Your task to perform on an android device: delete the emails in spam in the gmail app Image 0: 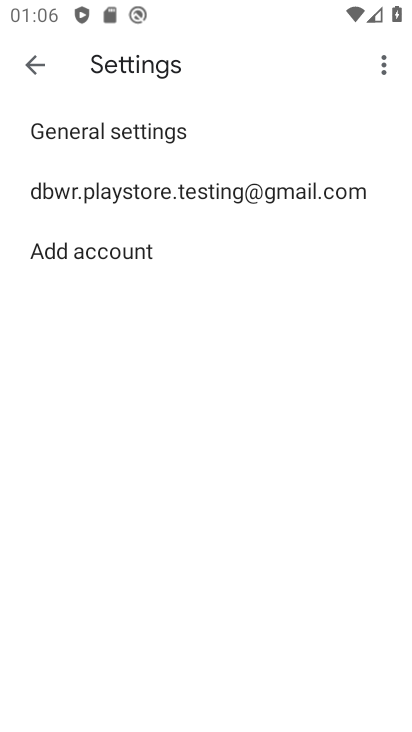
Step 0: press home button
Your task to perform on an android device: delete the emails in spam in the gmail app Image 1: 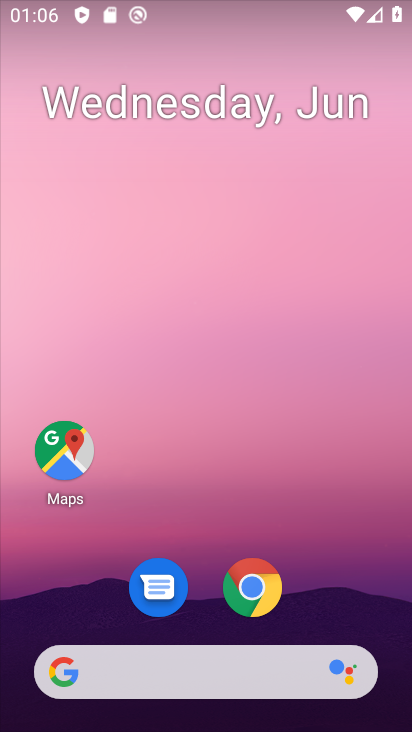
Step 1: drag from (377, 570) to (333, 144)
Your task to perform on an android device: delete the emails in spam in the gmail app Image 2: 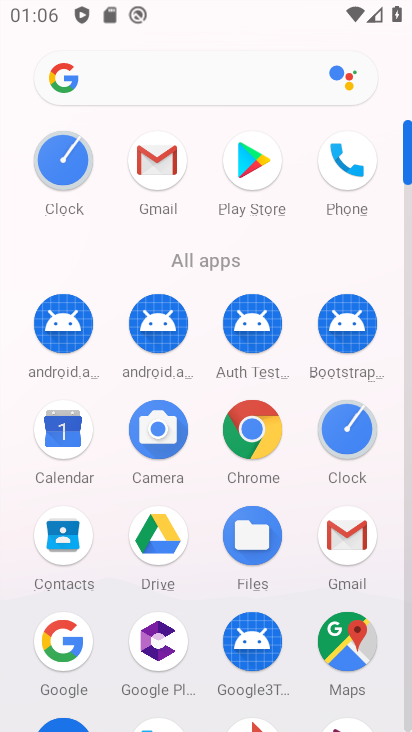
Step 2: click (172, 178)
Your task to perform on an android device: delete the emails in spam in the gmail app Image 3: 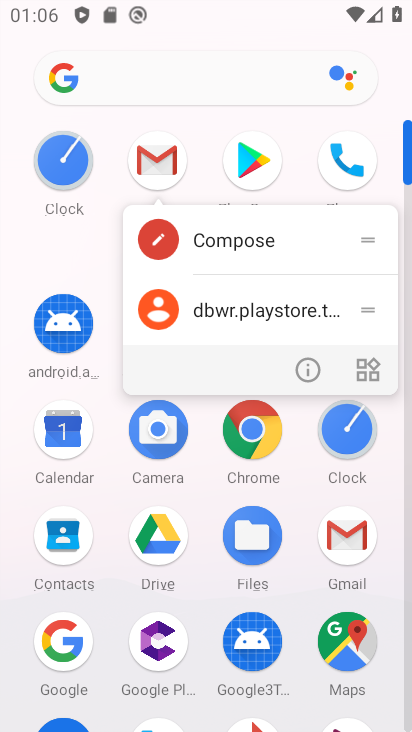
Step 3: click (161, 166)
Your task to perform on an android device: delete the emails in spam in the gmail app Image 4: 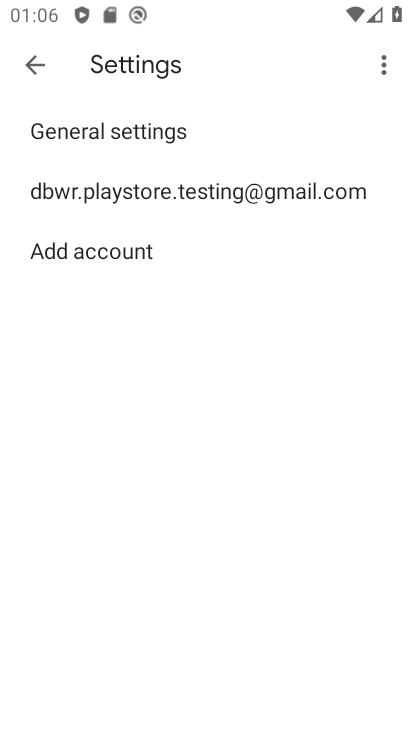
Step 4: click (25, 65)
Your task to perform on an android device: delete the emails in spam in the gmail app Image 5: 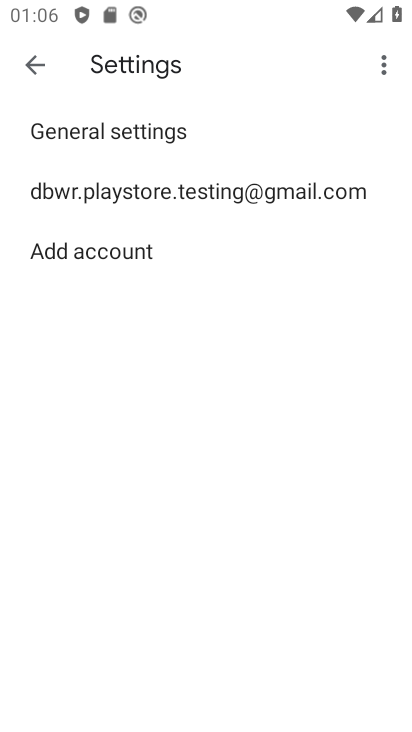
Step 5: click (29, 67)
Your task to perform on an android device: delete the emails in spam in the gmail app Image 6: 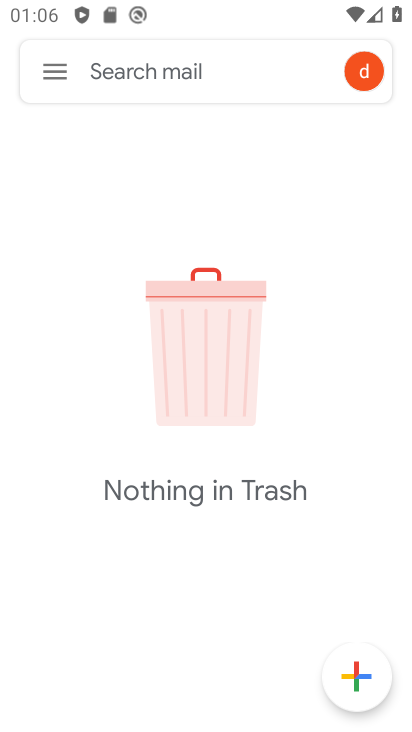
Step 6: click (52, 62)
Your task to perform on an android device: delete the emails in spam in the gmail app Image 7: 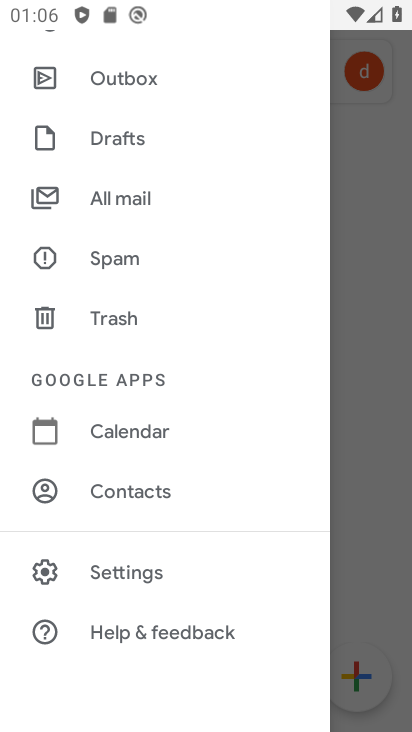
Step 7: click (126, 264)
Your task to perform on an android device: delete the emails in spam in the gmail app Image 8: 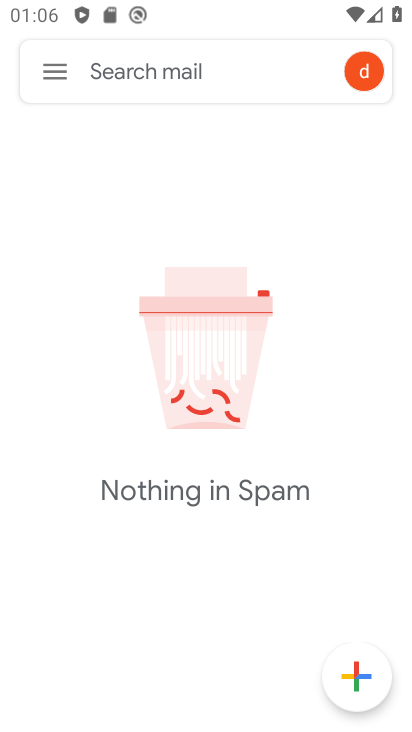
Step 8: task complete